Your task to perform on an android device: Open battery settings Image 0: 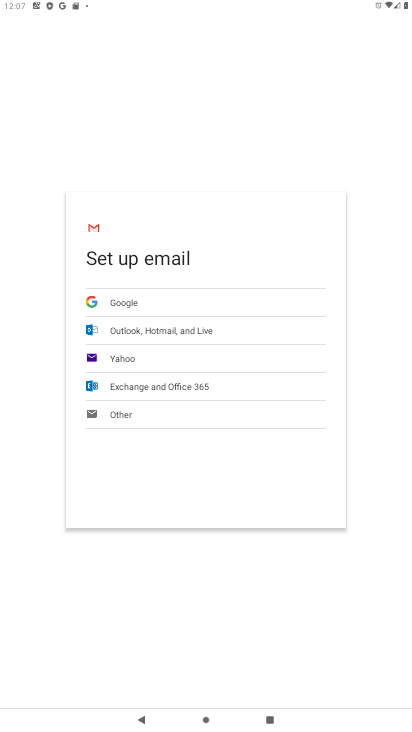
Step 0: press home button
Your task to perform on an android device: Open battery settings Image 1: 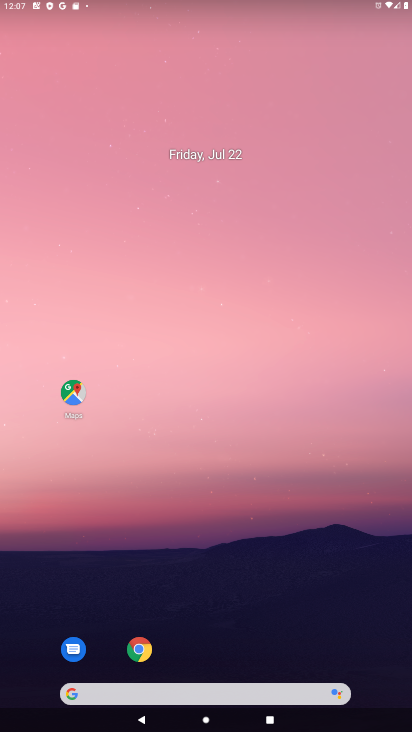
Step 1: drag from (387, 615) to (177, 80)
Your task to perform on an android device: Open battery settings Image 2: 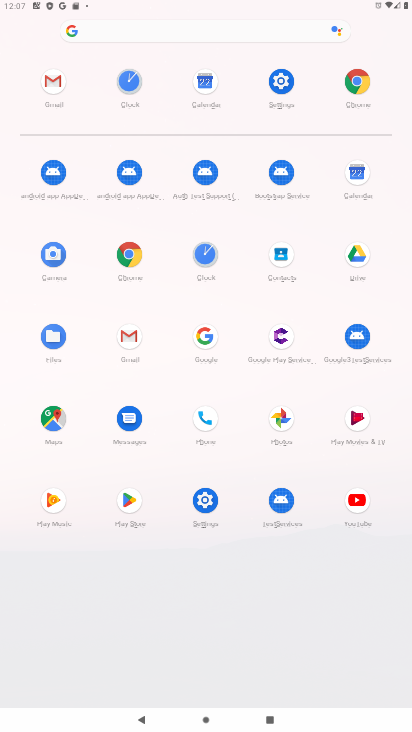
Step 2: click (280, 84)
Your task to perform on an android device: Open battery settings Image 3: 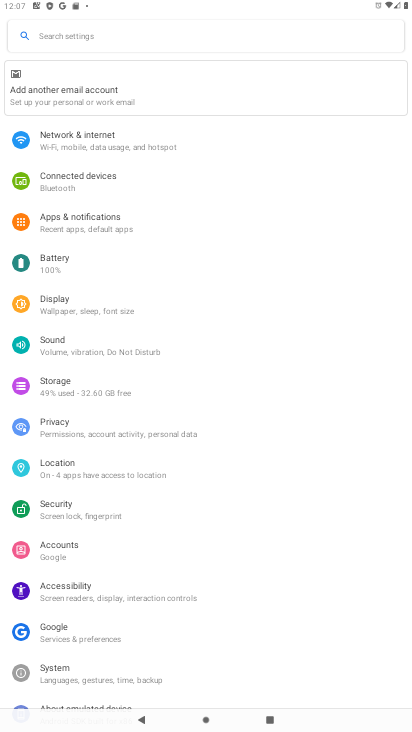
Step 3: click (92, 264)
Your task to perform on an android device: Open battery settings Image 4: 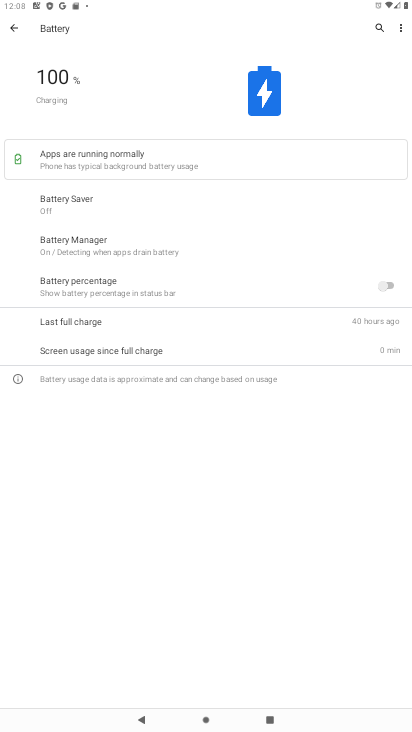
Step 4: task complete